Your task to perform on an android device: Open sound settings Image 0: 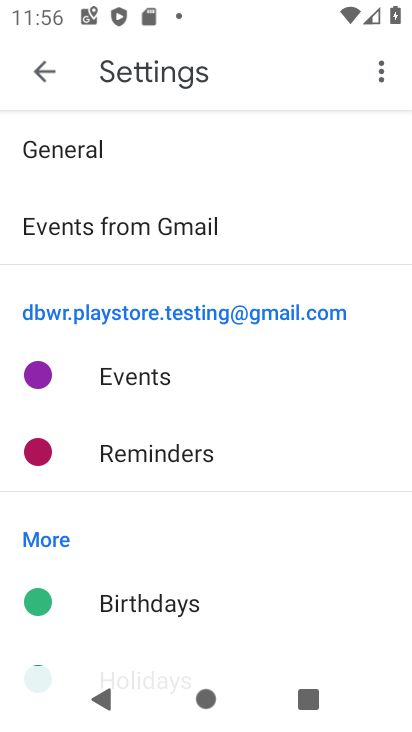
Step 0: press home button
Your task to perform on an android device: Open sound settings Image 1: 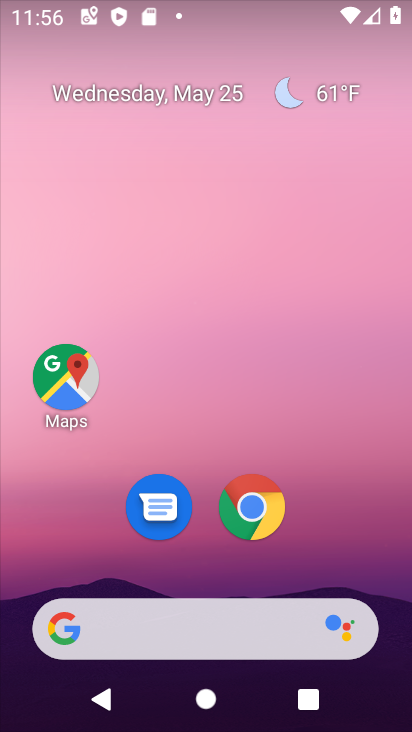
Step 1: task complete